Your task to perform on an android device: turn off notifications in google photos Image 0: 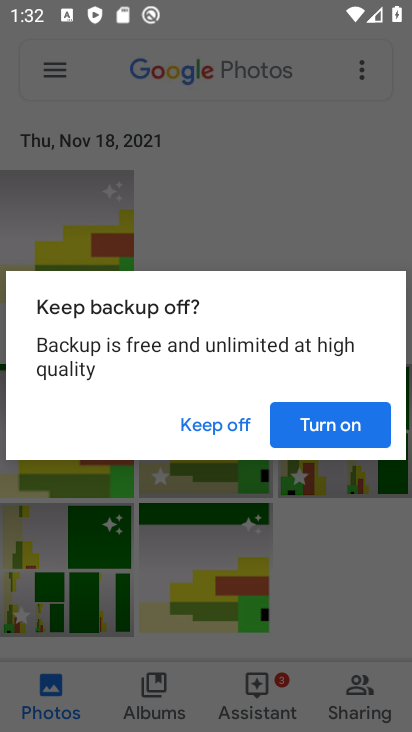
Step 0: click (270, 199)
Your task to perform on an android device: turn off notifications in google photos Image 1: 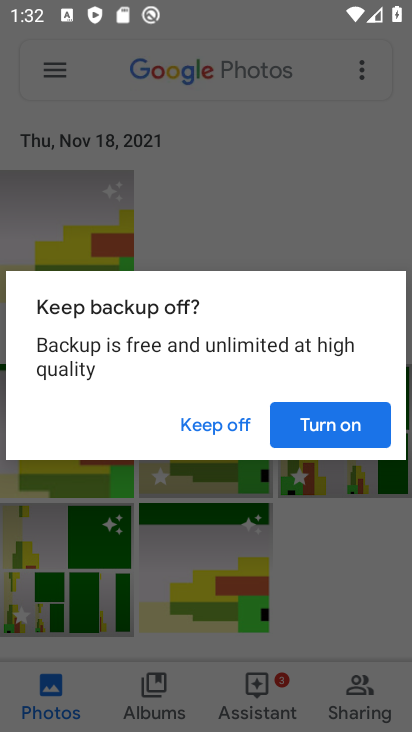
Step 1: press home button
Your task to perform on an android device: turn off notifications in google photos Image 2: 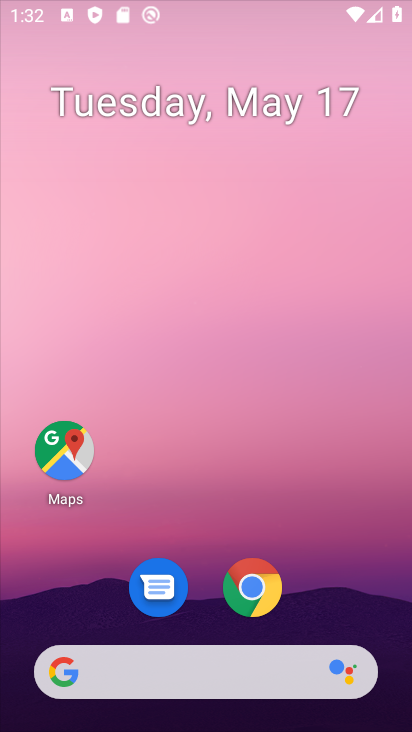
Step 2: drag from (248, 540) to (241, 19)
Your task to perform on an android device: turn off notifications in google photos Image 3: 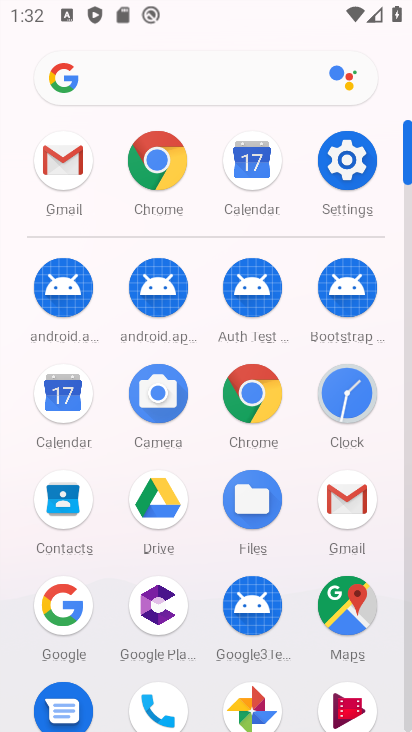
Step 3: click (259, 696)
Your task to perform on an android device: turn off notifications in google photos Image 4: 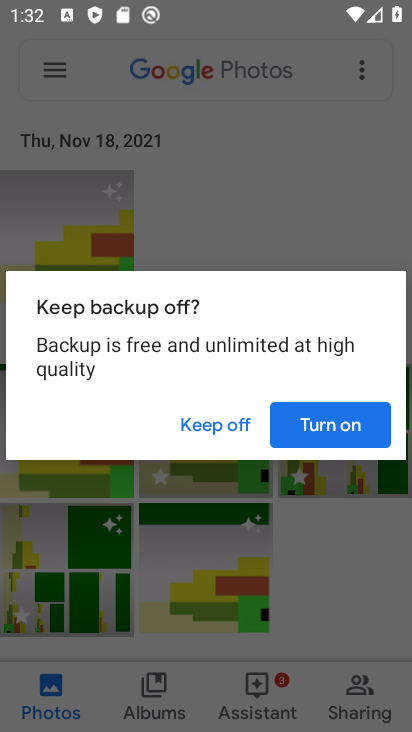
Step 4: click (330, 413)
Your task to perform on an android device: turn off notifications in google photos Image 5: 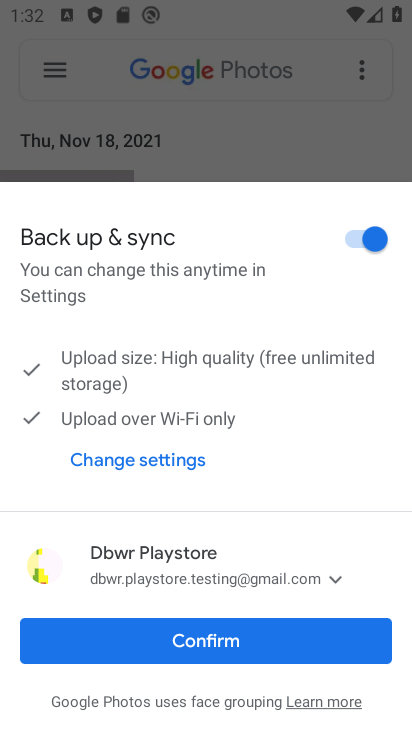
Step 5: click (182, 633)
Your task to perform on an android device: turn off notifications in google photos Image 6: 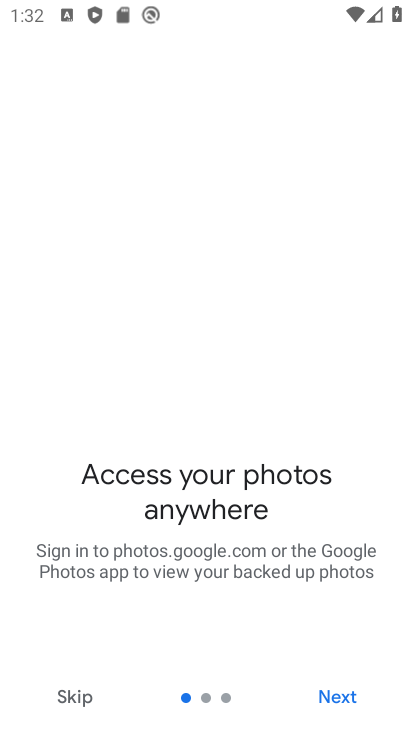
Step 6: click (74, 695)
Your task to perform on an android device: turn off notifications in google photos Image 7: 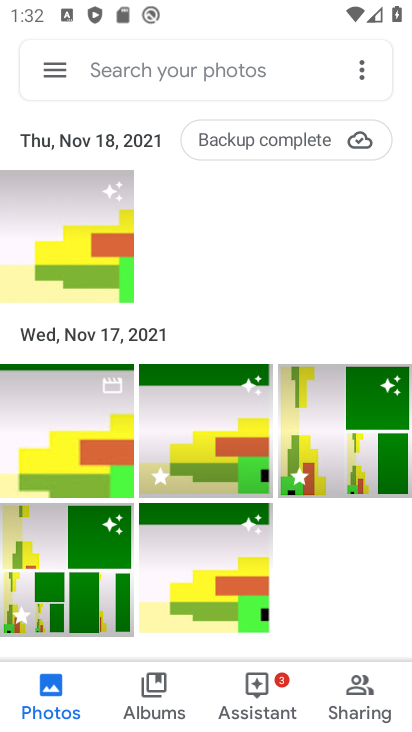
Step 7: click (27, 40)
Your task to perform on an android device: turn off notifications in google photos Image 8: 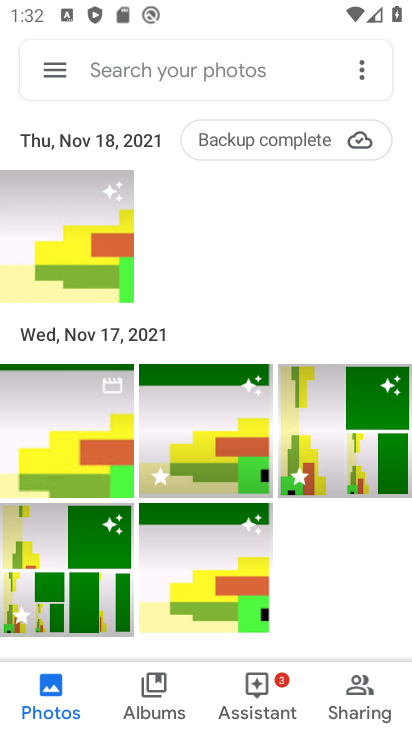
Step 8: click (51, 53)
Your task to perform on an android device: turn off notifications in google photos Image 9: 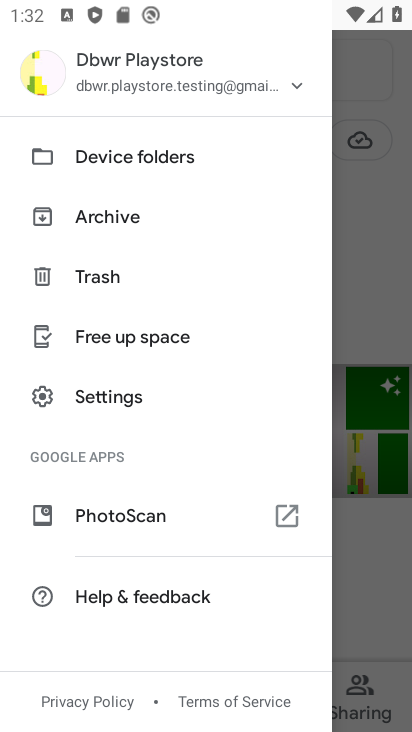
Step 9: click (157, 394)
Your task to perform on an android device: turn off notifications in google photos Image 10: 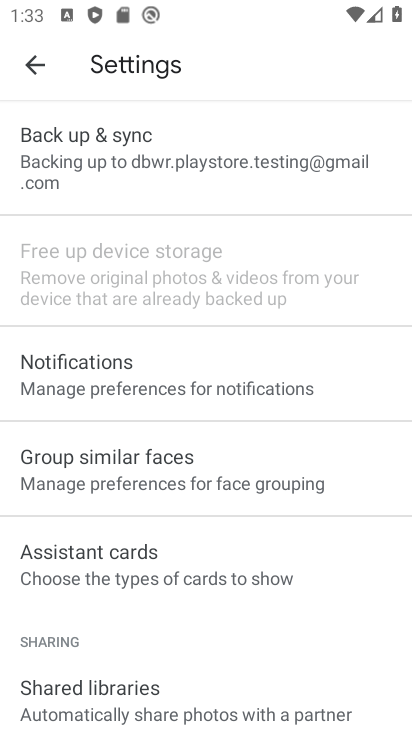
Step 10: click (147, 366)
Your task to perform on an android device: turn off notifications in google photos Image 11: 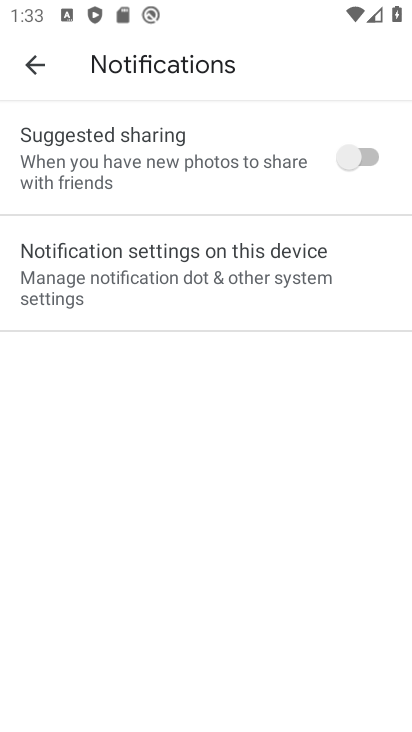
Step 11: click (235, 250)
Your task to perform on an android device: turn off notifications in google photos Image 12: 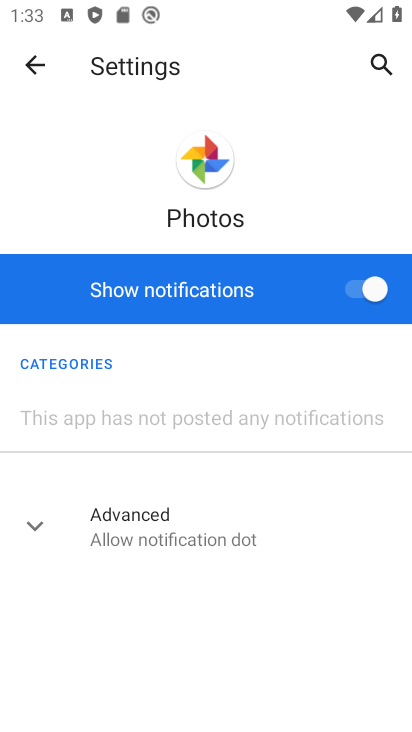
Step 12: click (363, 299)
Your task to perform on an android device: turn off notifications in google photos Image 13: 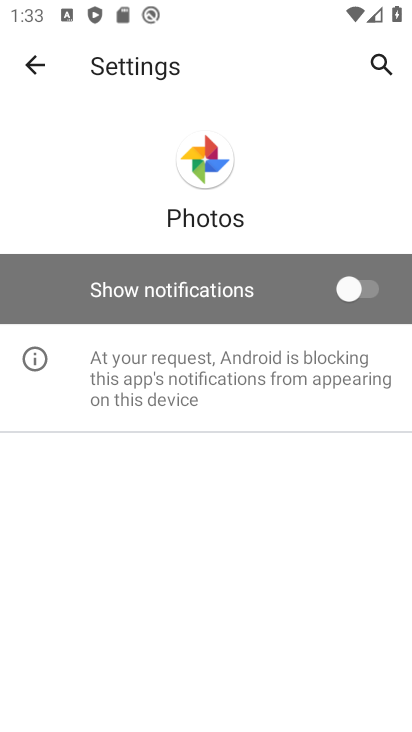
Step 13: task complete